Your task to perform on an android device: open a new tab in the chrome app Image 0: 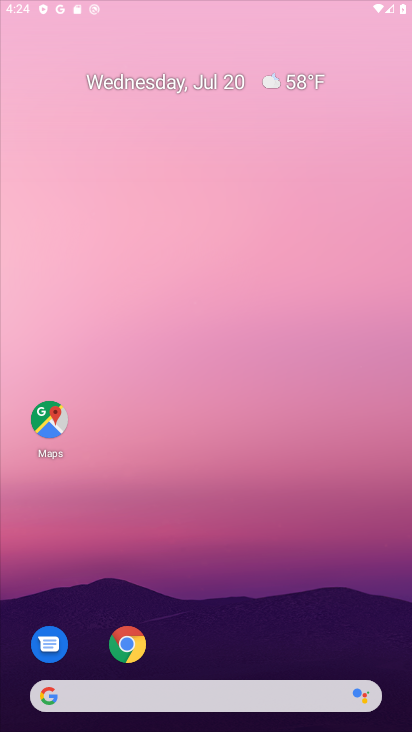
Step 0: press home button
Your task to perform on an android device: open a new tab in the chrome app Image 1: 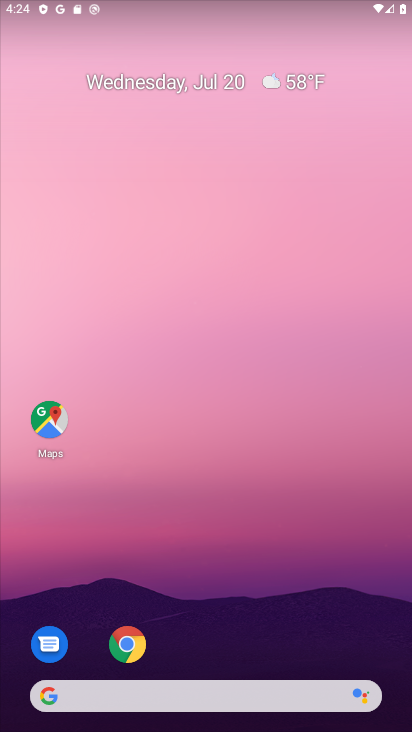
Step 1: drag from (195, 658) to (199, 62)
Your task to perform on an android device: open a new tab in the chrome app Image 2: 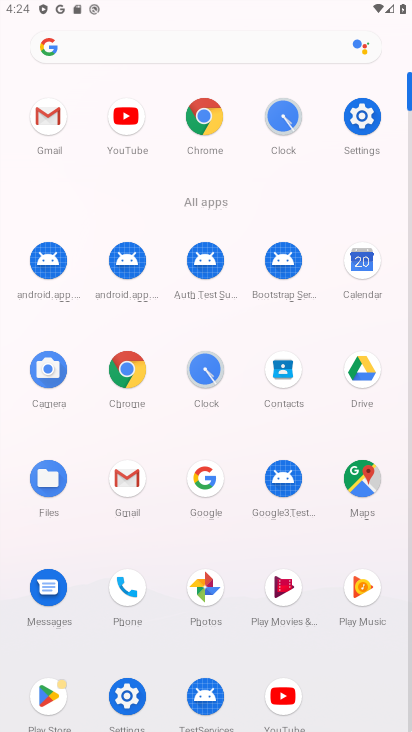
Step 2: click (209, 117)
Your task to perform on an android device: open a new tab in the chrome app Image 3: 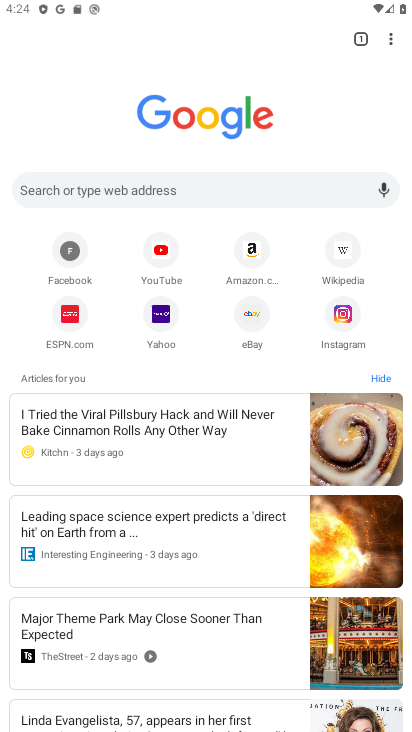
Step 3: click (364, 34)
Your task to perform on an android device: open a new tab in the chrome app Image 4: 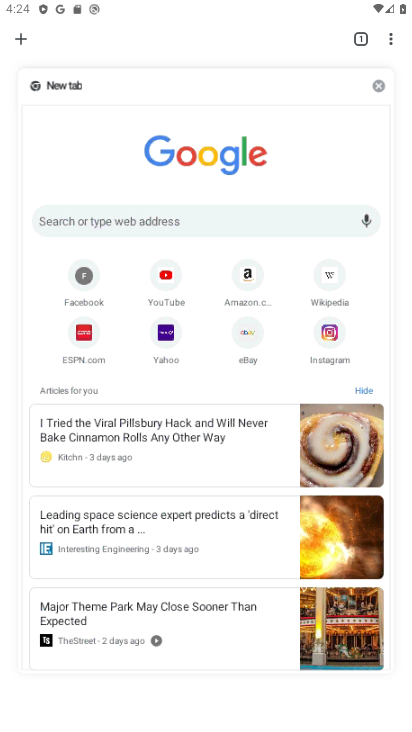
Step 4: click (26, 39)
Your task to perform on an android device: open a new tab in the chrome app Image 5: 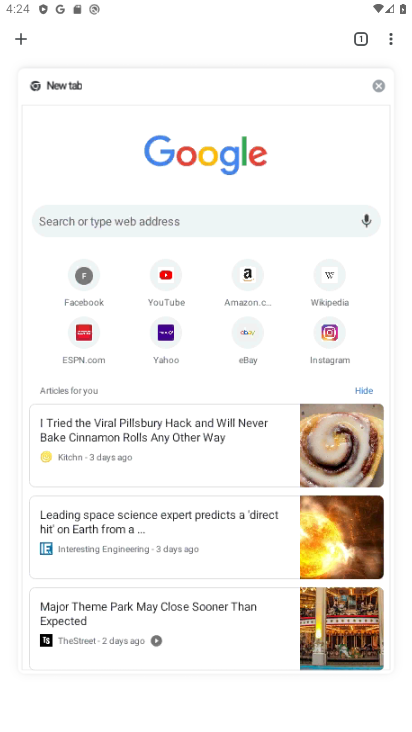
Step 5: click (24, 37)
Your task to perform on an android device: open a new tab in the chrome app Image 6: 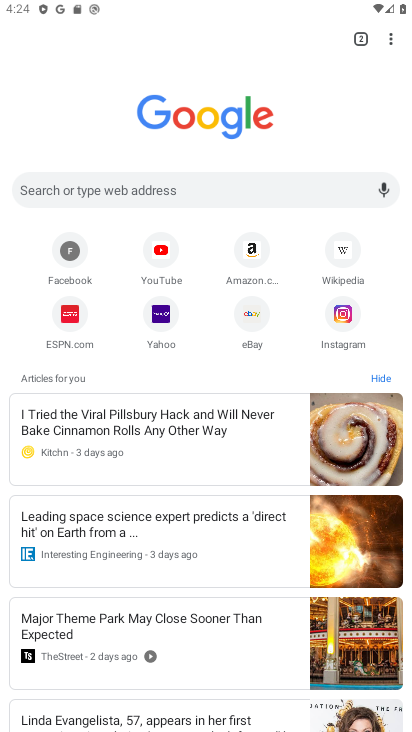
Step 6: task complete